Your task to perform on an android device: Check the weather Image 0: 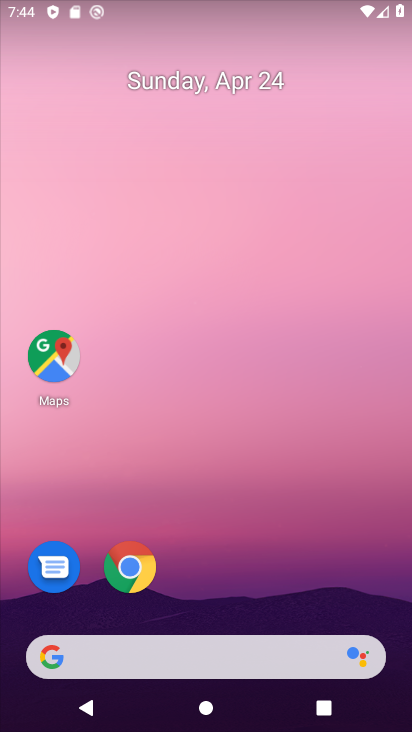
Step 0: drag from (20, 197) to (395, 302)
Your task to perform on an android device: Check the weather Image 1: 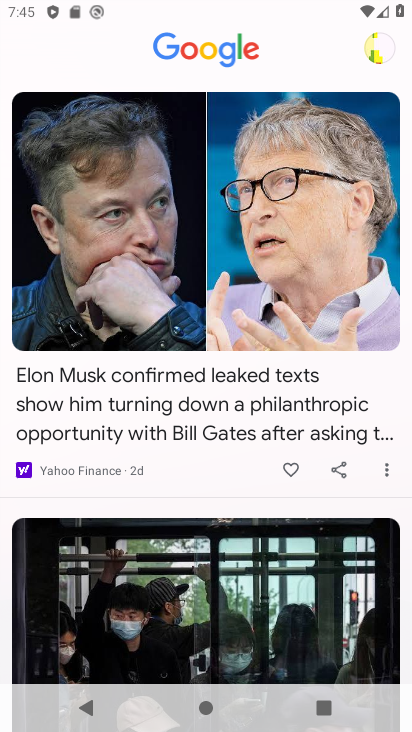
Step 1: drag from (244, 291) to (250, 566)
Your task to perform on an android device: Check the weather Image 2: 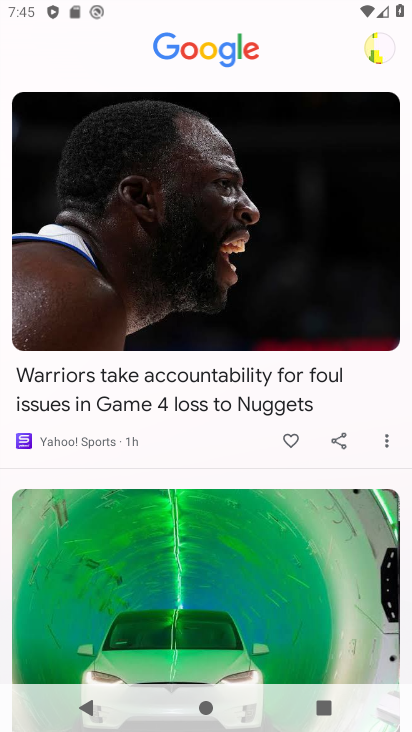
Step 2: press home button
Your task to perform on an android device: Check the weather Image 3: 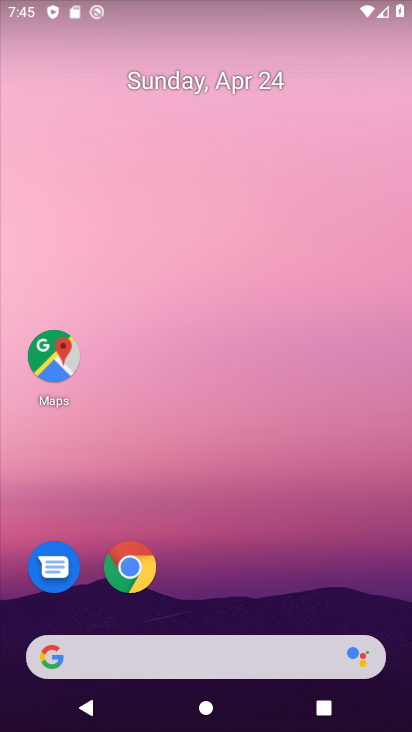
Step 3: drag from (304, 519) to (186, 434)
Your task to perform on an android device: Check the weather Image 4: 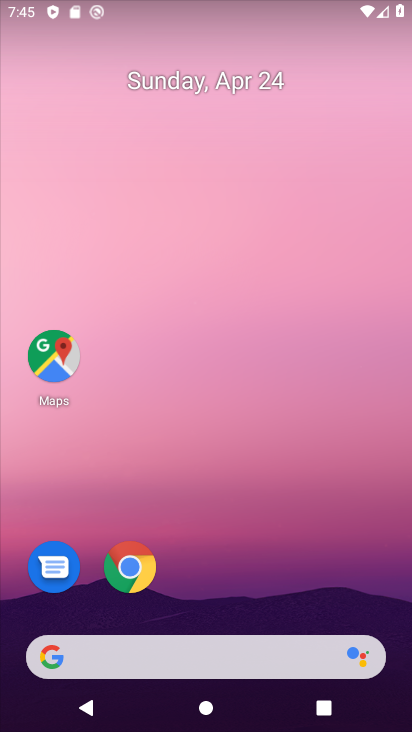
Step 4: click (176, 646)
Your task to perform on an android device: Check the weather Image 5: 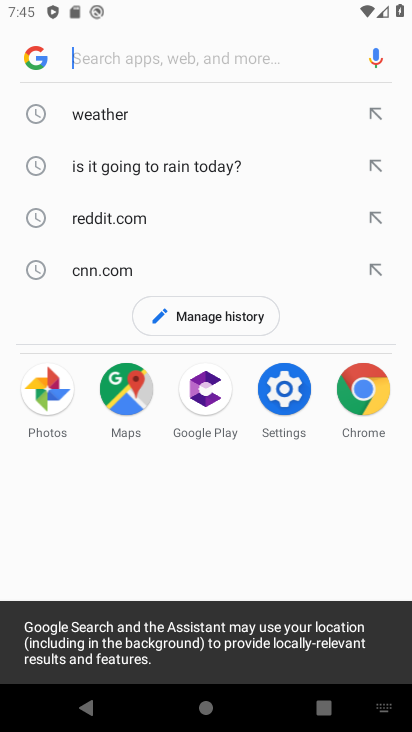
Step 5: click (125, 113)
Your task to perform on an android device: Check the weather Image 6: 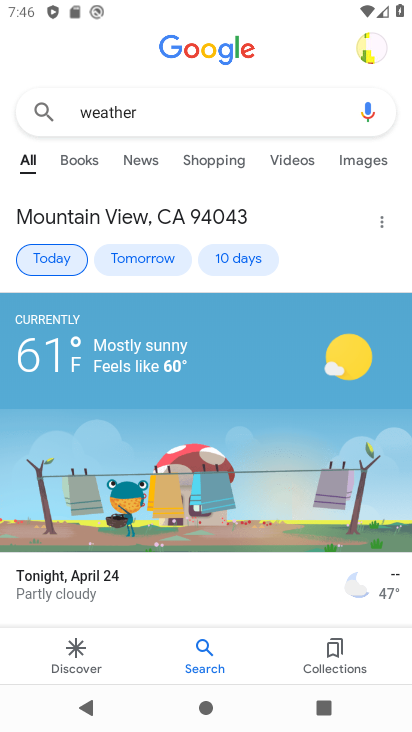
Step 6: task complete